Your task to perform on an android device: toggle javascript in the chrome app Image 0: 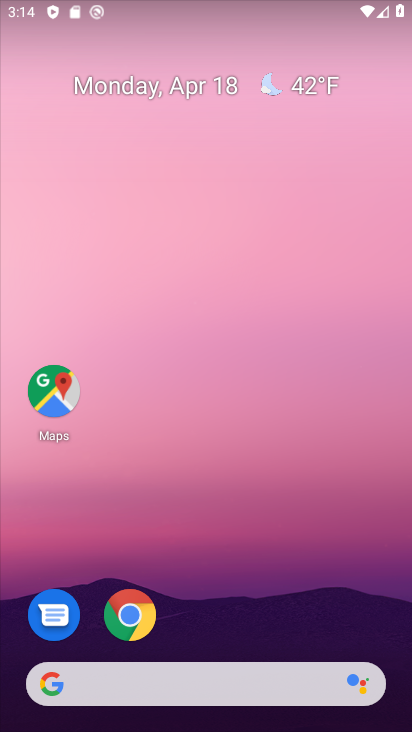
Step 0: click (150, 607)
Your task to perform on an android device: toggle javascript in the chrome app Image 1: 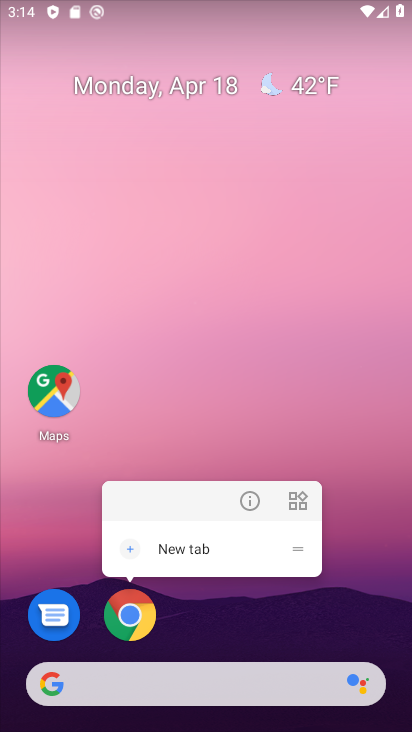
Step 1: click (150, 602)
Your task to perform on an android device: toggle javascript in the chrome app Image 2: 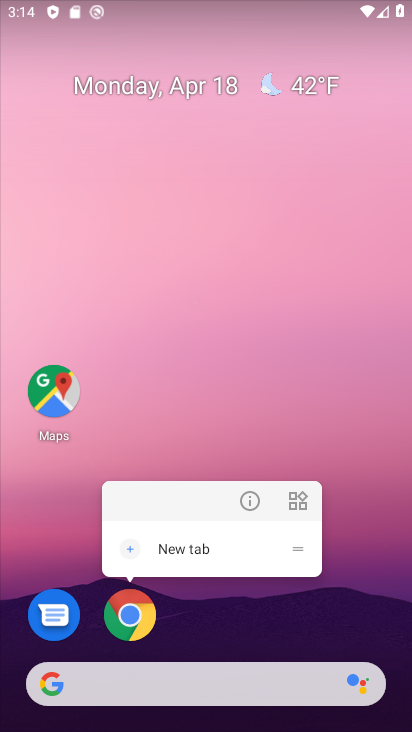
Step 2: click (145, 608)
Your task to perform on an android device: toggle javascript in the chrome app Image 3: 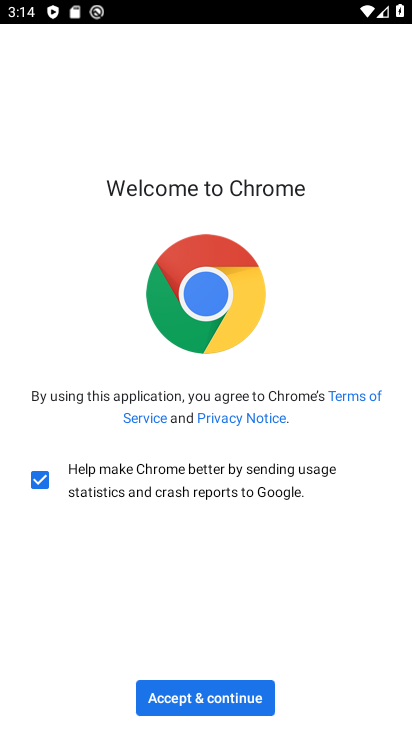
Step 3: click (229, 700)
Your task to perform on an android device: toggle javascript in the chrome app Image 4: 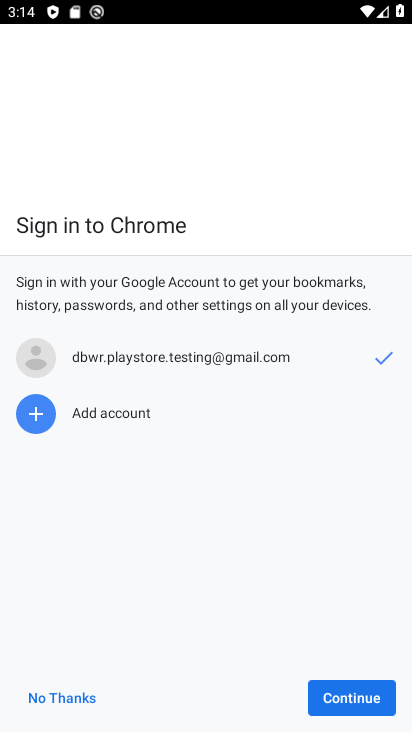
Step 4: click (333, 696)
Your task to perform on an android device: toggle javascript in the chrome app Image 5: 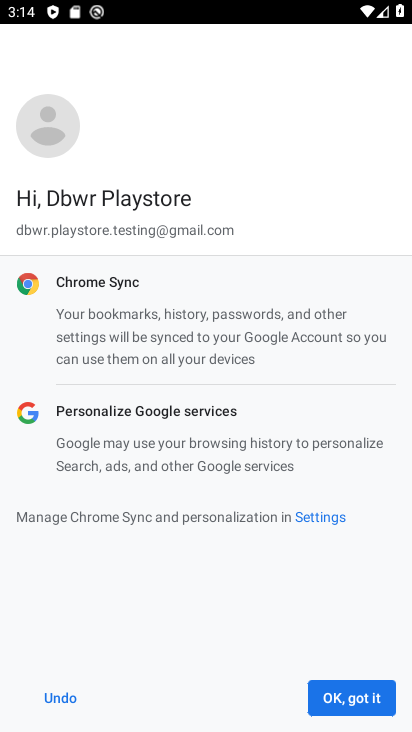
Step 5: click (333, 696)
Your task to perform on an android device: toggle javascript in the chrome app Image 6: 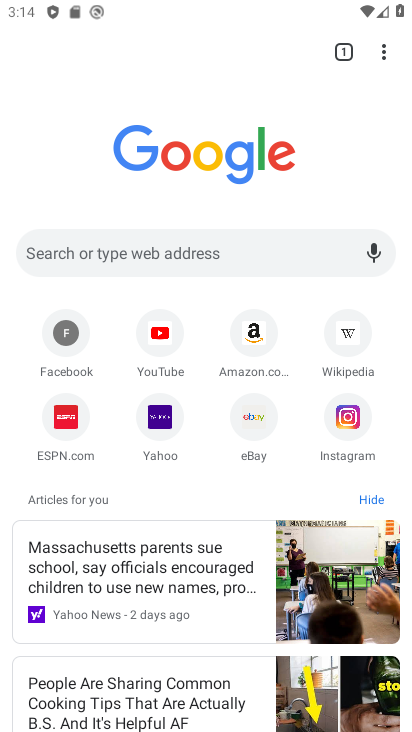
Step 6: click (385, 56)
Your task to perform on an android device: toggle javascript in the chrome app Image 7: 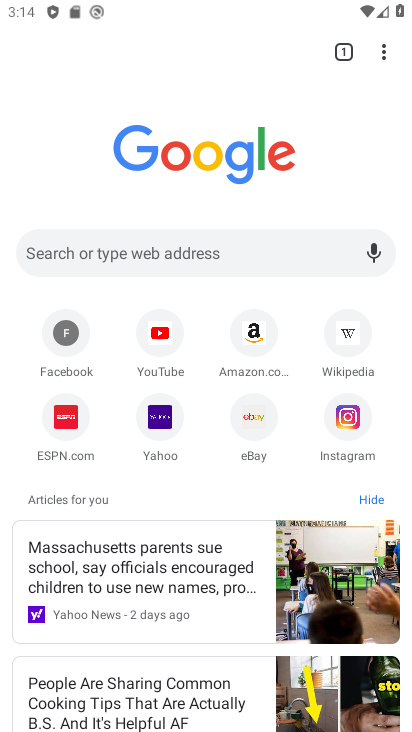
Step 7: click (385, 56)
Your task to perform on an android device: toggle javascript in the chrome app Image 8: 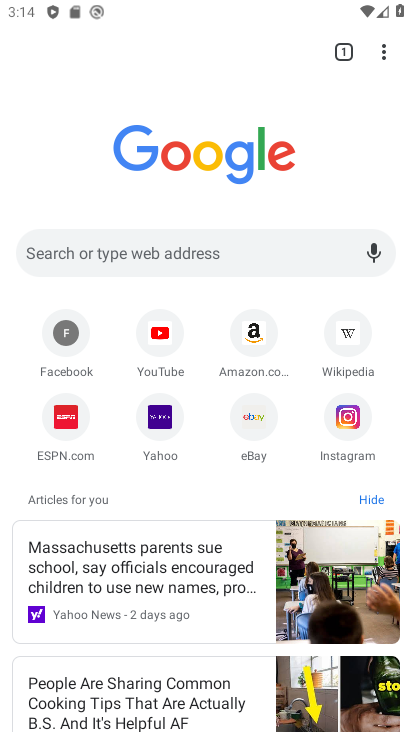
Step 8: click (385, 56)
Your task to perform on an android device: toggle javascript in the chrome app Image 9: 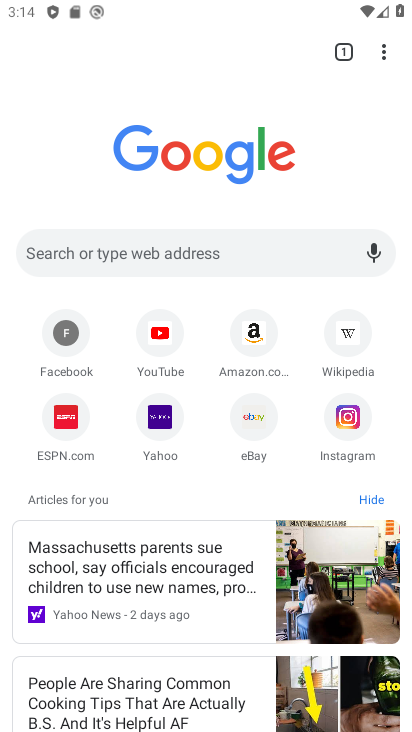
Step 9: click (385, 53)
Your task to perform on an android device: toggle javascript in the chrome app Image 10: 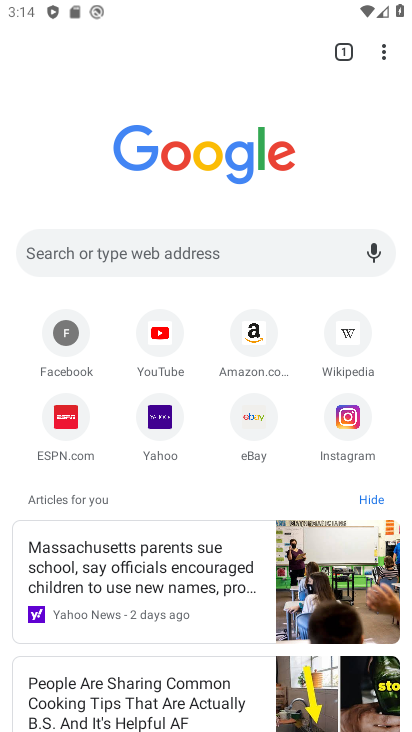
Step 10: click (385, 54)
Your task to perform on an android device: toggle javascript in the chrome app Image 11: 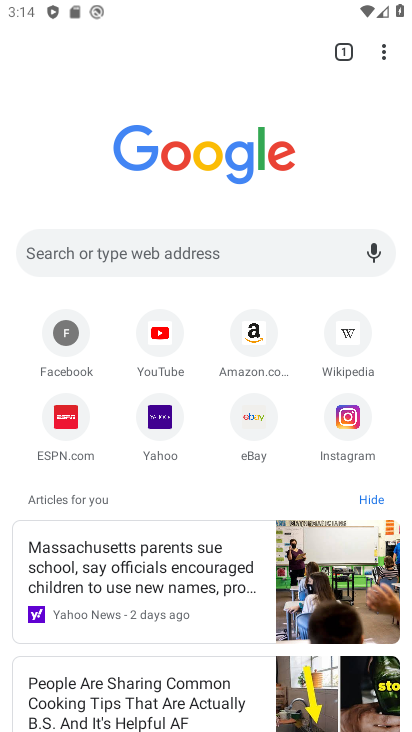
Step 11: click (385, 54)
Your task to perform on an android device: toggle javascript in the chrome app Image 12: 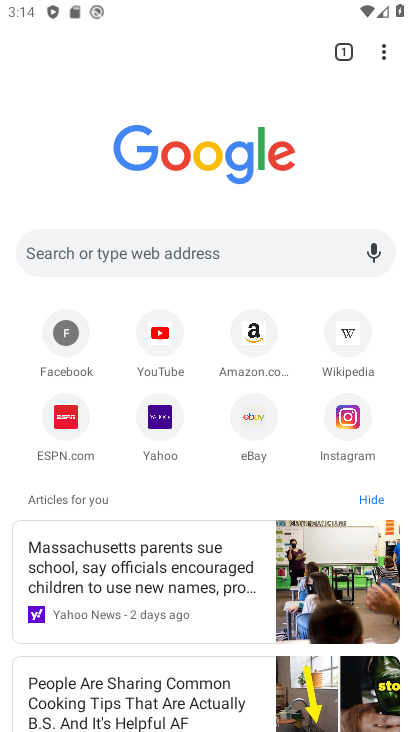
Step 12: click (385, 54)
Your task to perform on an android device: toggle javascript in the chrome app Image 13: 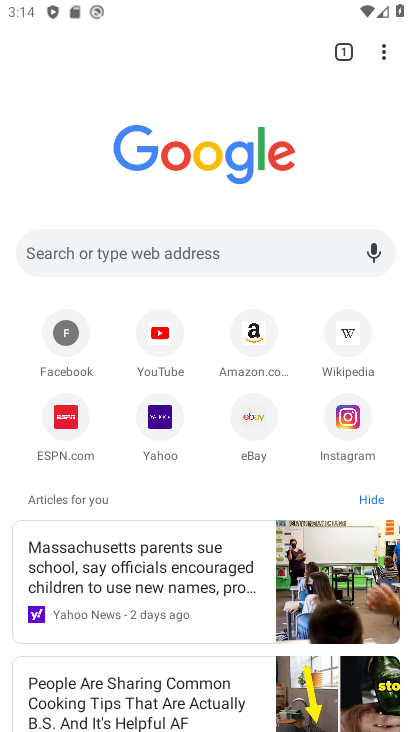
Step 13: click (385, 54)
Your task to perform on an android device: toggle javascript in the chrome app Image 14: 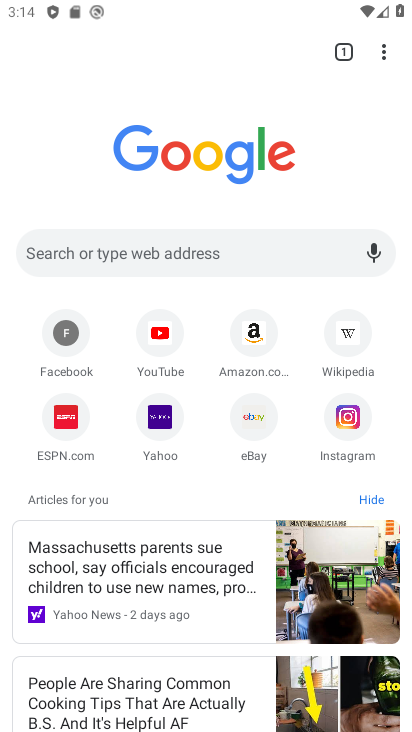
Step 14: click (385, 54)
Your task to perform on an android device: toggle javascript in the chrome app Image 15: 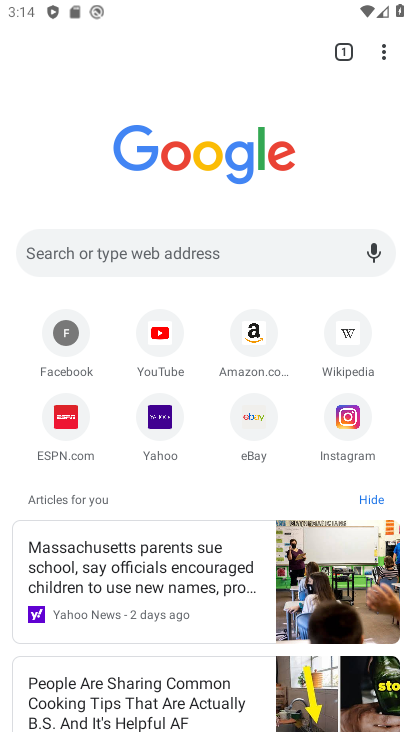
Step 15: click (383, 51)
Your task to perform on an android device: toggle javascript in the chrome app Image 16: 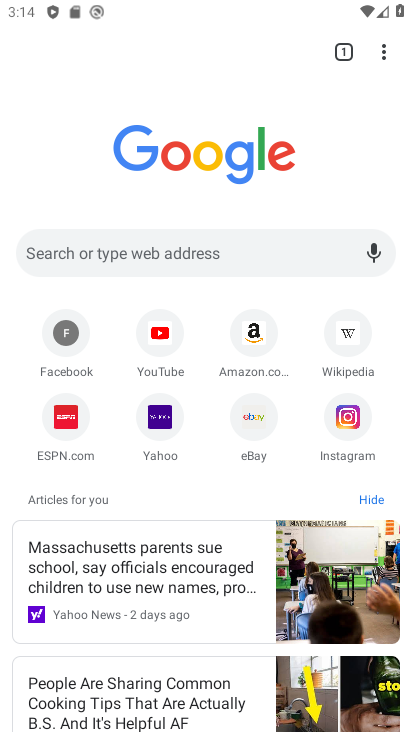
Step 16: click (383, 51)
Your task to perform on an android device: toggle javascript in the chrome app Image 17: 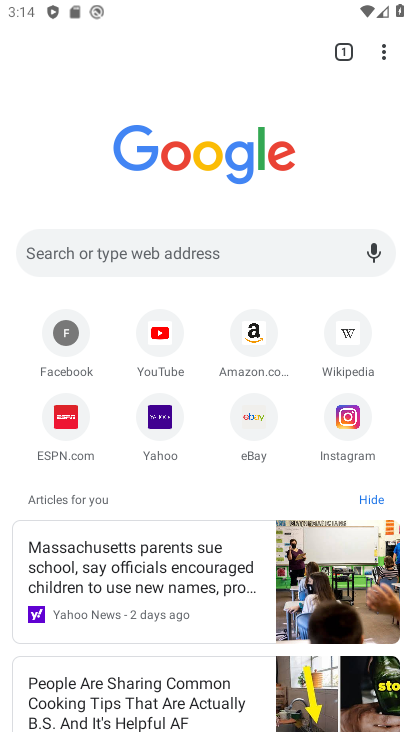
Step 17: click (377, 49)
Your task to perform on an android device: toggle javascript in the chrome app Image 18: 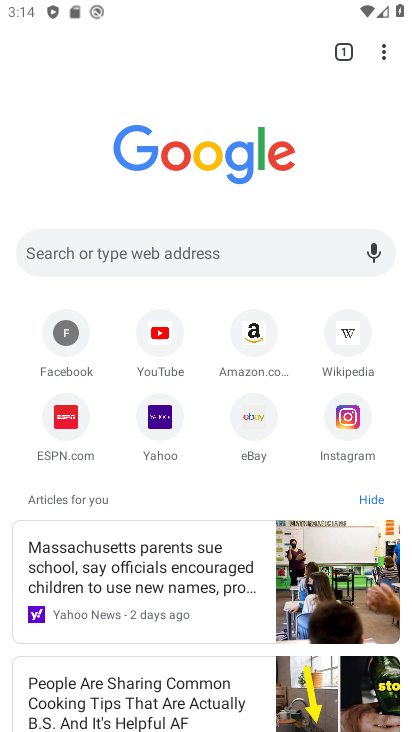
Step 18: click (378, 53)
Your task to perform on an android device: toggle javascript in the chrome app Image 19: 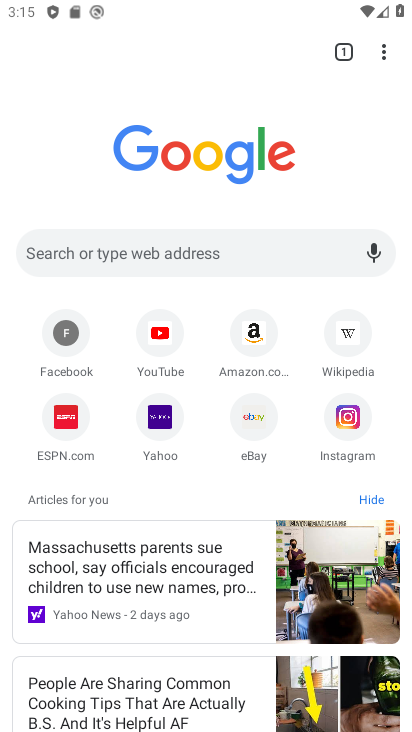
Step 19: click (385, 54)
Your task to perform on an android device: toggle javascript in the chrome app Image 20: 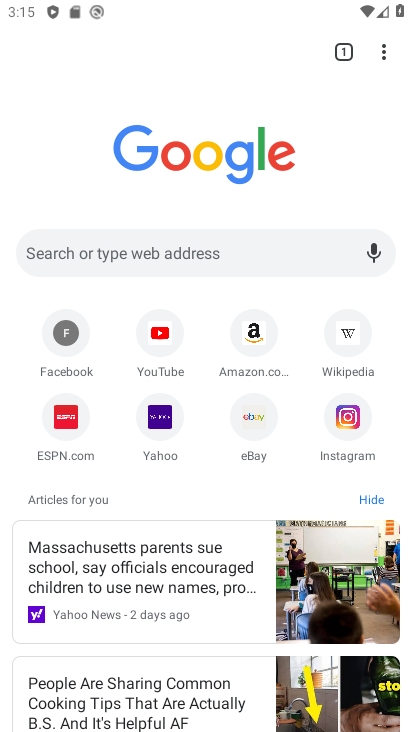
Step 20: click (386, 55)
Your task to perform on an android device: toggle javascript in the chrome app Image 21: 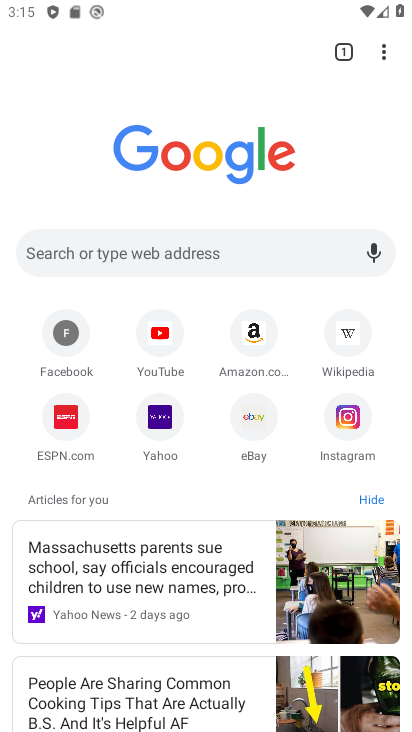
Step 21: click (383, 51)
Your task to perform on an android device: toggle javascript in the chrome app Image 22: 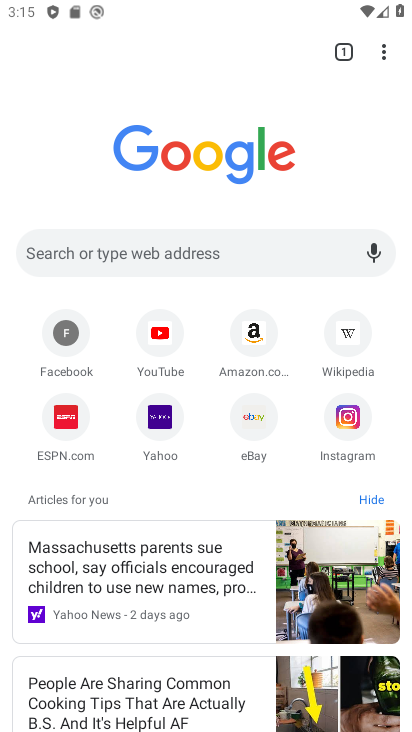
Step 22: click (384, 50)
Your task to perform on an android device: toggle javascript in the chrome app Image 23: 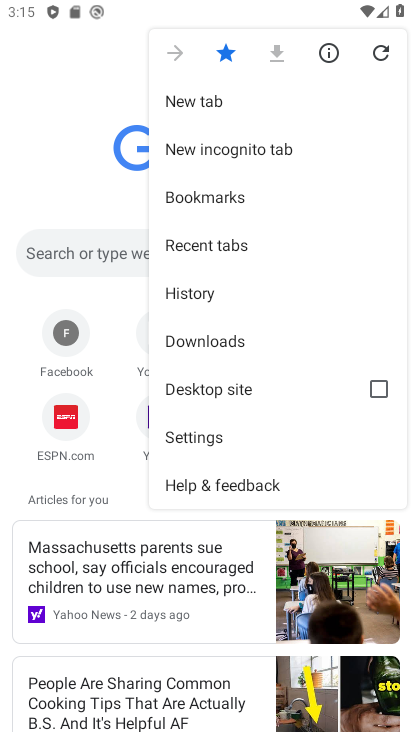
Step 23: drag from (280, 438) to (272, 215)
Your task to perform on an android device: toggle javascript in the chrome app Image 24: 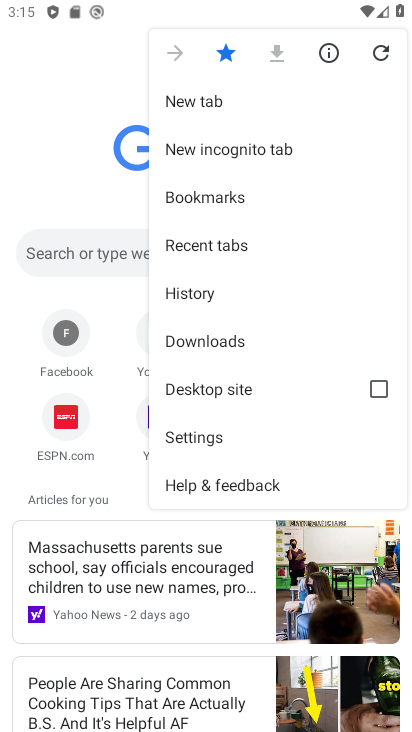
Step 24: click (243, 439)
Your task to perform on an android device: toggle javascript in the chrome app Image 25: 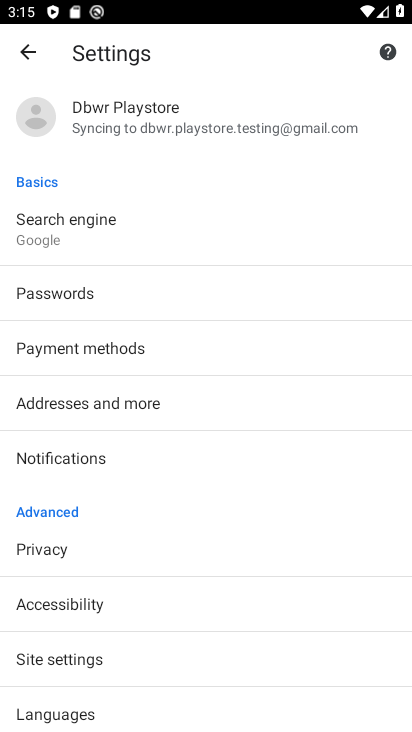
Step 25: click (169, 666)
Your task to perform on an android device: toggle javascript in the chrome app Image 26: 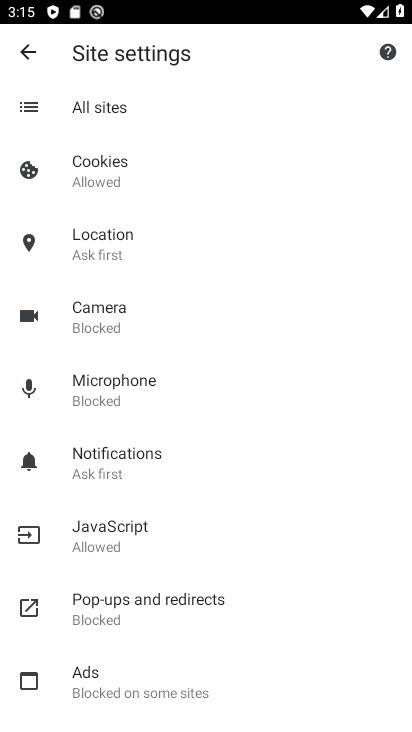
Step 26: click (196, 544)
Your task to perform on an android device: toggle javascript in the chrome app Image 27: 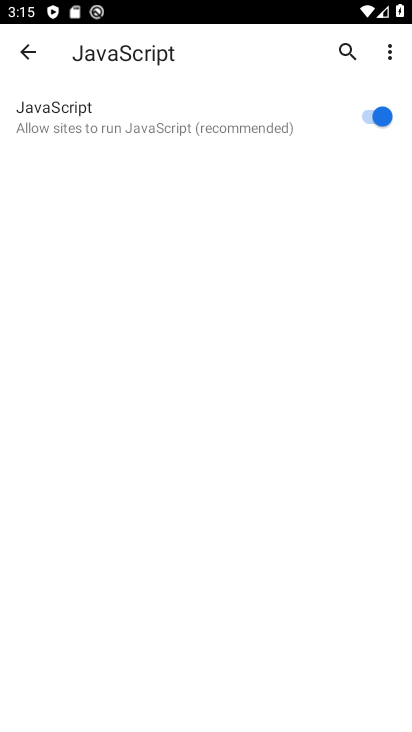
Step 27: click (385, 121)
Your task to perform on an android device: toggle javascript in the chrome app Image 28: 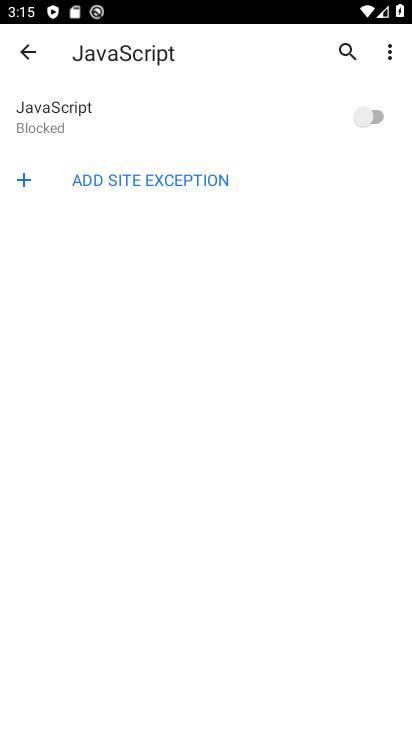
Step 28: task complete